Your task to perform on an android device: delete the emails in spam in the gmail app Image 0: 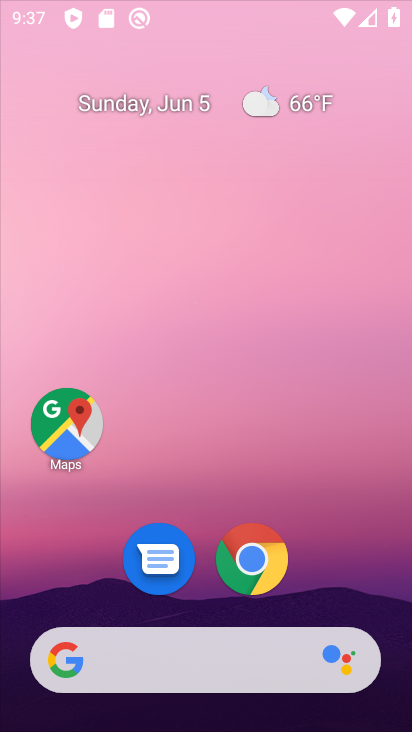
Step 0: press home button
Your task to perform on an android device: delete the emails in spam in the gmail app Image 1: 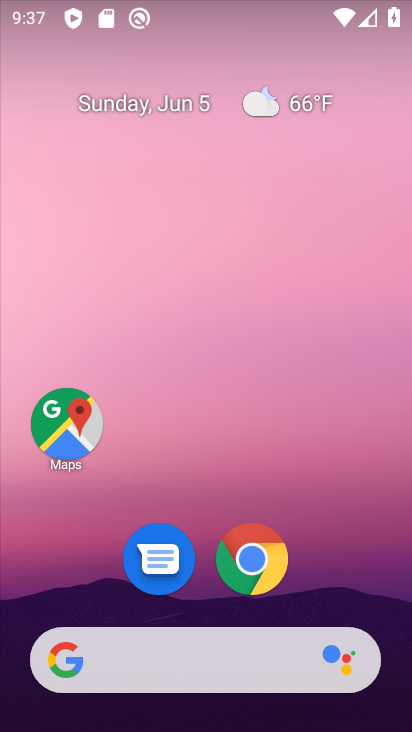
Step 1: drag from (209, 608) to (254, 55)
Your task to perform on an android device: delete the emails in spam in the gmail app Image 2: 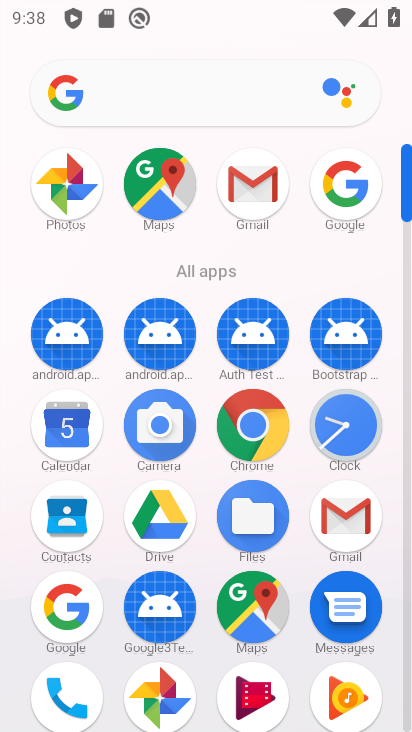
Step 2: click (345, 503)
Your task to perform on an android device: delete the emails in spam in the gmail app Image 3: 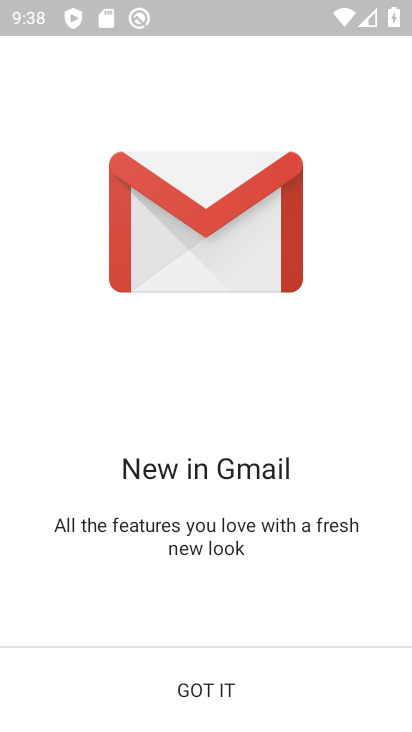
Step 3: click (215, 695)
Your task to perform on an android device: delete the emails in spam in the gmail app Image 4: 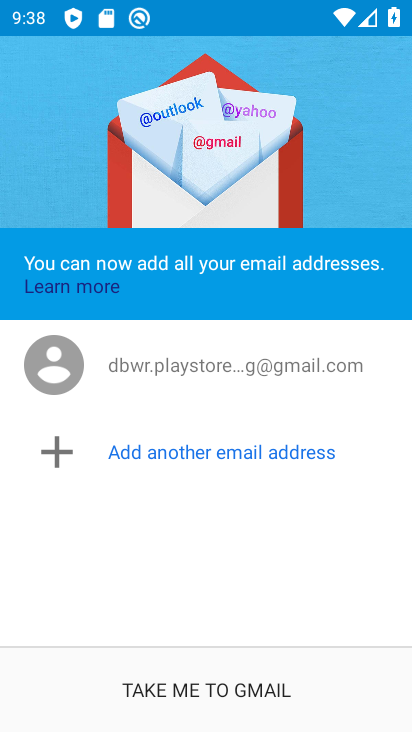
Step 4: click (228, 698)
Your task to perform on an android device: delete the emails in spam in the gmail app Image 5: 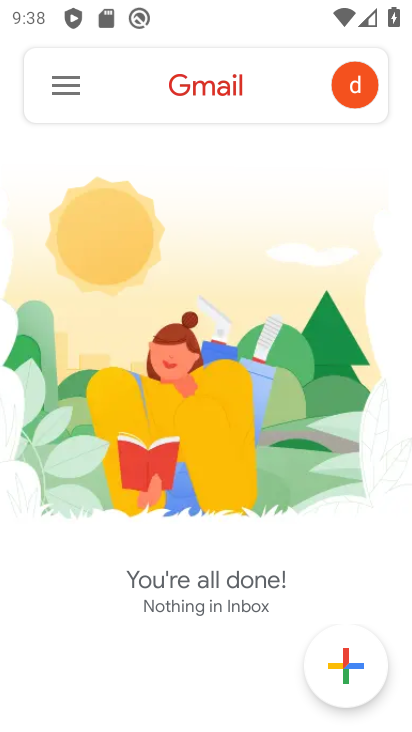
Step 5: click (64, 84)
Your task to perform on an android device: delete the emails in spam in the gmail app Image 6: 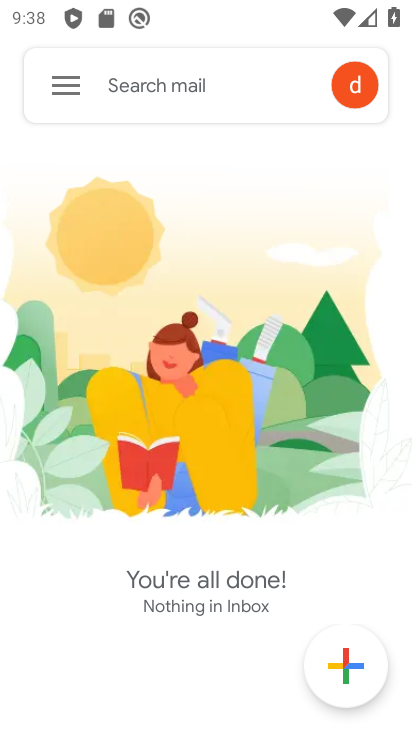
Step 6: click (53, 82)
Your task to perform on an android device: delete the emails in spam in the gmail app Image 7: 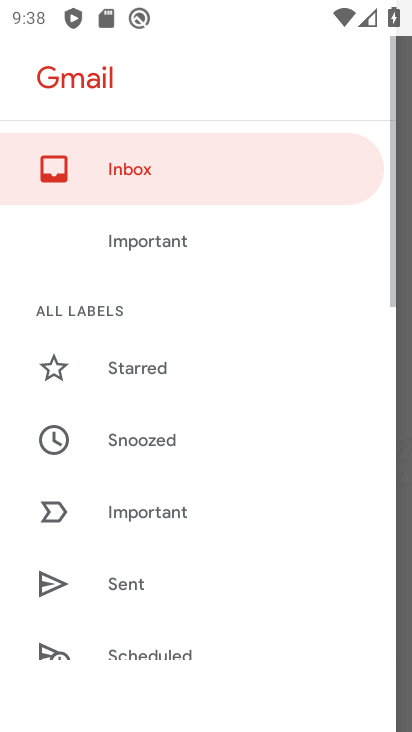
Step 7: drag from (161, 575) to (195, 50)
Your task to perform on an android device: delete the emails in spam in the gmail app Image 8: 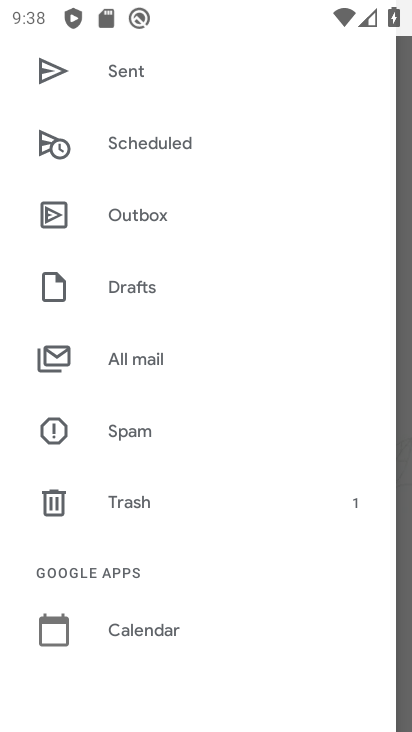
Step 8: click (155, 424)
Your task to perform on an android device: delete the emails in spam in the gmail app Image 9: 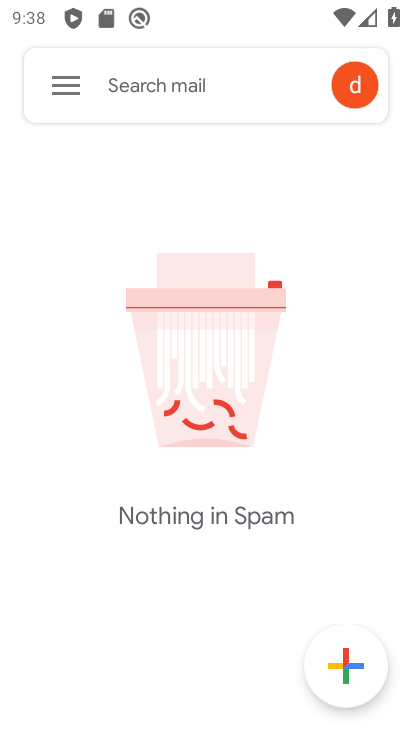
Step 9: task complete